Your task to perform on an android device: Open settings on Google Maps Image 0: 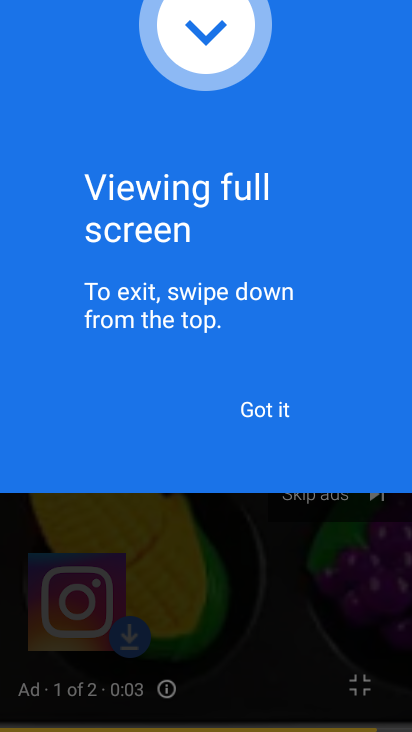
Step 0: press home button
Your task to perform on an android device: Open settings on Google Maps Image 1: 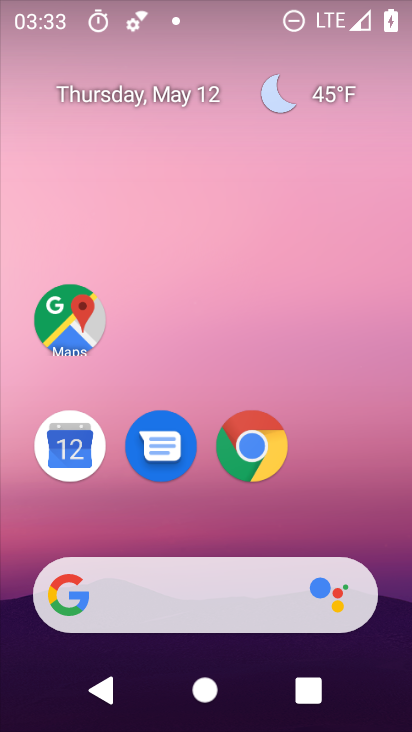
Step 1: click (83, 333)
Your task to perform on an android device: Open settings on Google Maps Image 2: 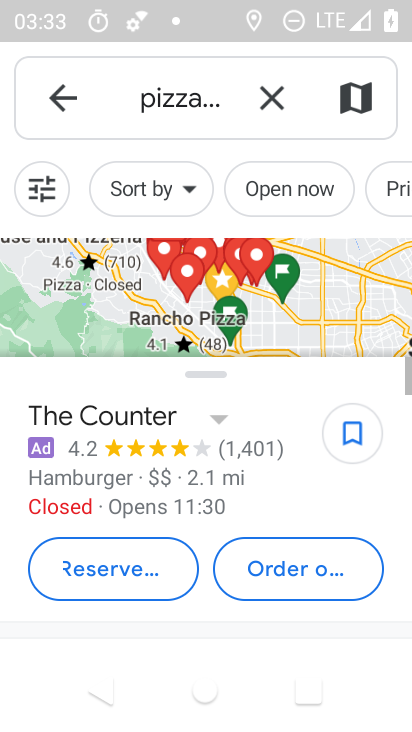
Step 2: click (77, 82)
Your task to perform on an android device: Open settings on Google Maps Image 3: 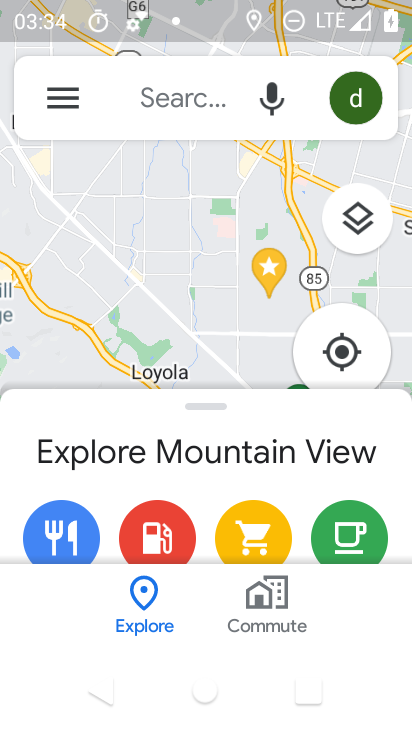
Step 3: click (67, 98)
Your task to perform on an android device: Open settings on Google Maps Image 4: 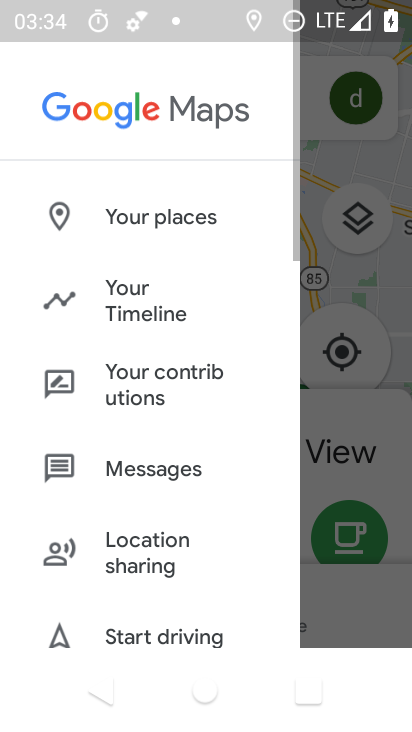
Step 4: drag from (143, 566) to (209, 164)
Your task to perform on an android device: Open settings on Google Maps Image 5: 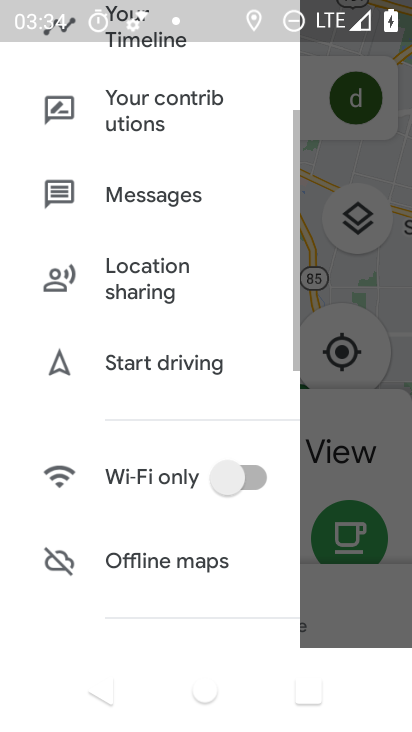
Step 5: drag from (154, 575) to (180, 242)
Your task to perform on an android device: Open settings on Google Maps Image 6: 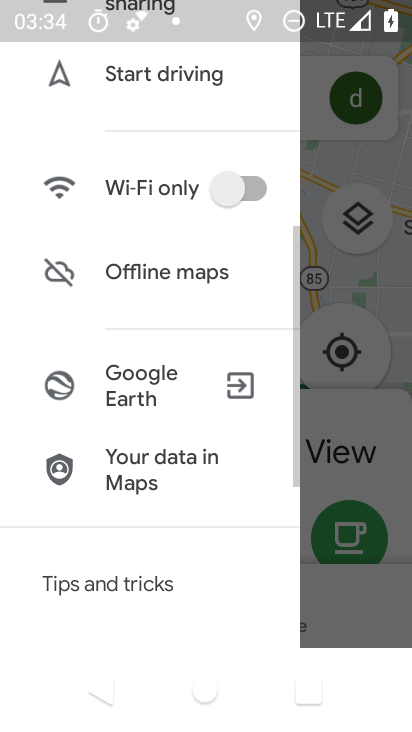
Step 6: drag from (139, 543) to (155, 242)
Your task to perform on an android device: Open settings on Google Maps Image 7: 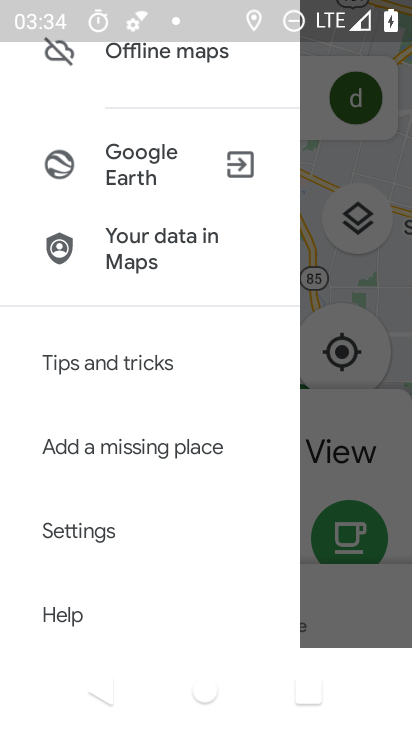
Step 7: click (88, 542)
Your task to perform on an android device: Open settings on Google Maps Image 8: 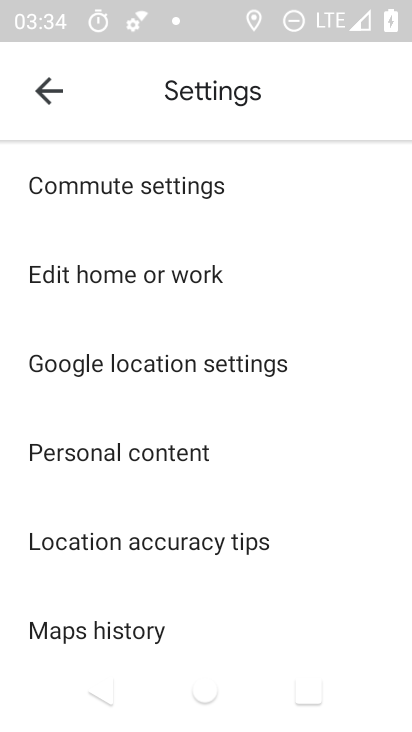
Step 8: task complete